Your task to perform on an android device: check the backup settings in the google photos Image 0: 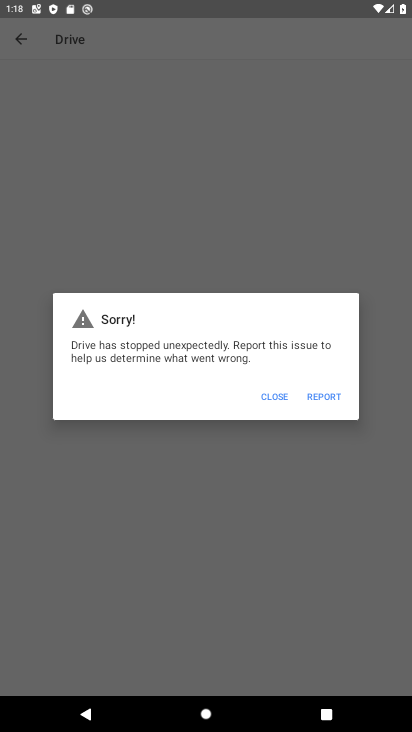
Step 0: press home button
Your task to perform on an android device: check the backup settings in the google photos Image 1: 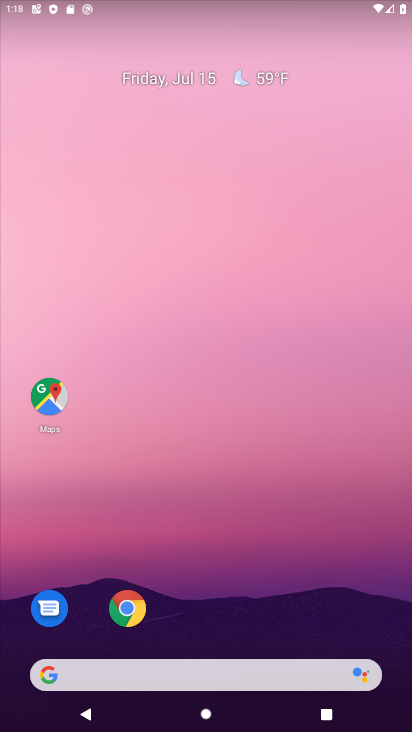
Step 1: drag from (198, 660) to (204, 226)
Your task to perform on an android device: check the backup settings in the google photos Image 2: 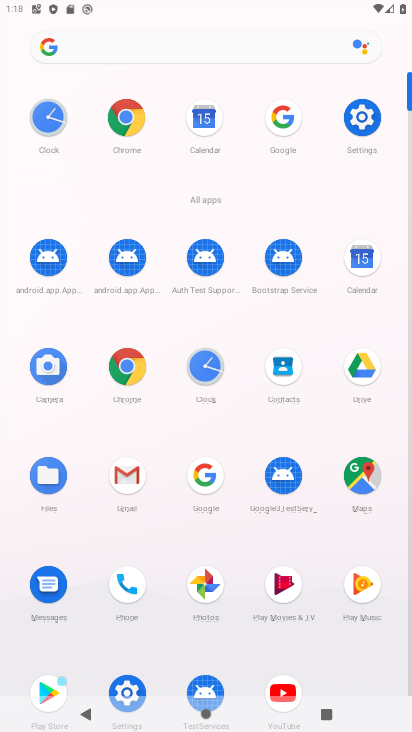
Step 2: click (199, 586)
Your task to perform on an android device: check the backup settings in the google photos Image 3: 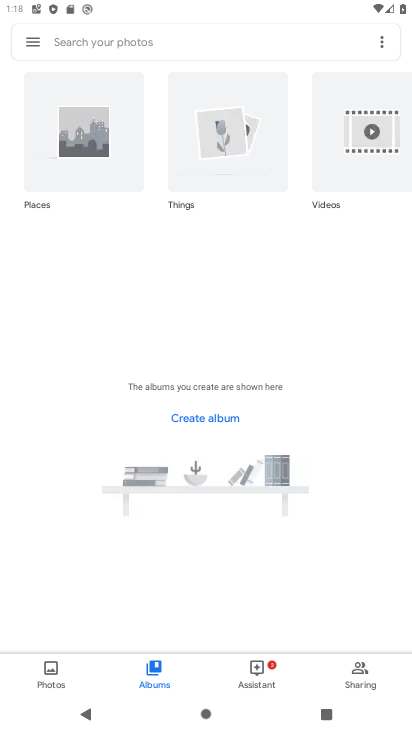
Step 3: click (33, 43)
Your task to perform on an android device: check the backup settings in the google photos Image 4: 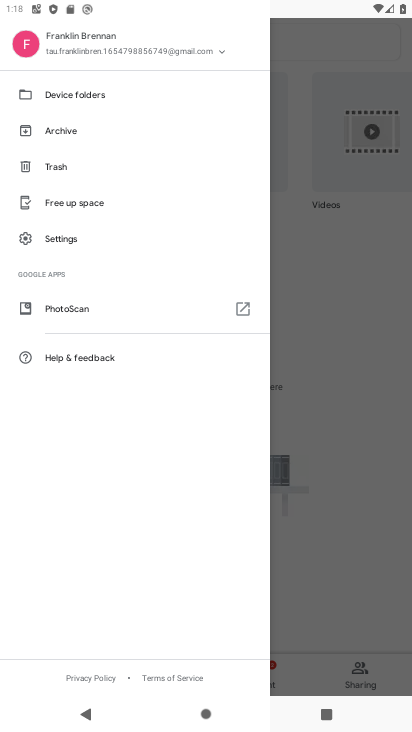
Step 4: click (54, 236)
Your task to perform on an android device: check the backup settings in the google photos Image 5: 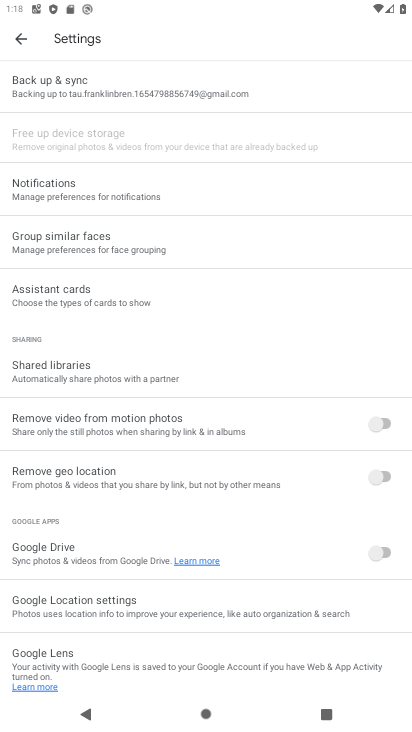
Step 5: click (106, 88)
Your task to perform on an android device: check the backup settings in the google photos Image 6: 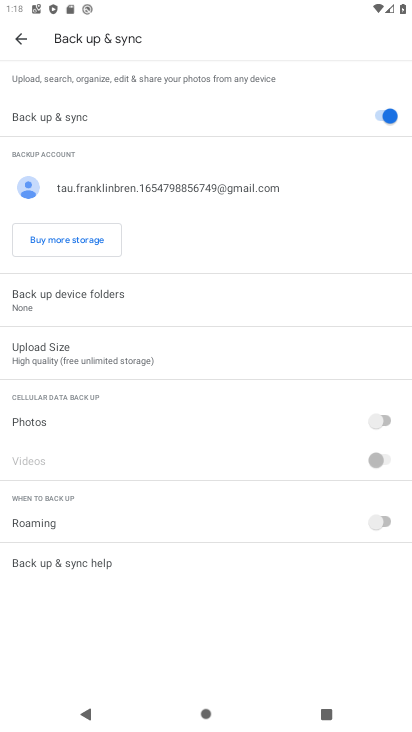
Step 6: task complete